Your task to perform on an android device: delete browsing data in the chrome app Image 0: 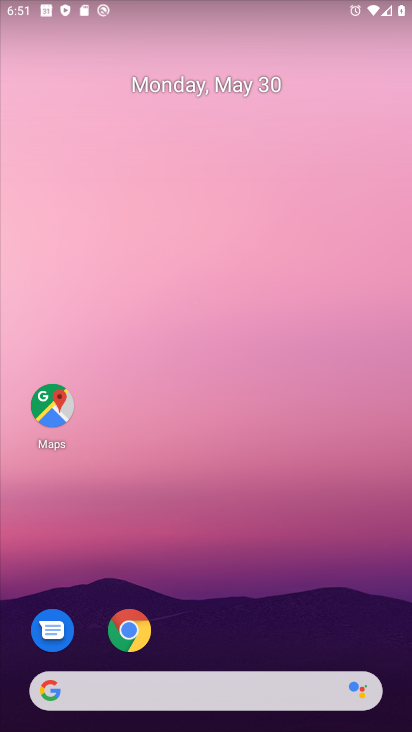
Step 0: drag from (354, 615) to (314, 57)
Your task to perform on an android device: delete browsing data in the chrome app Image 1: 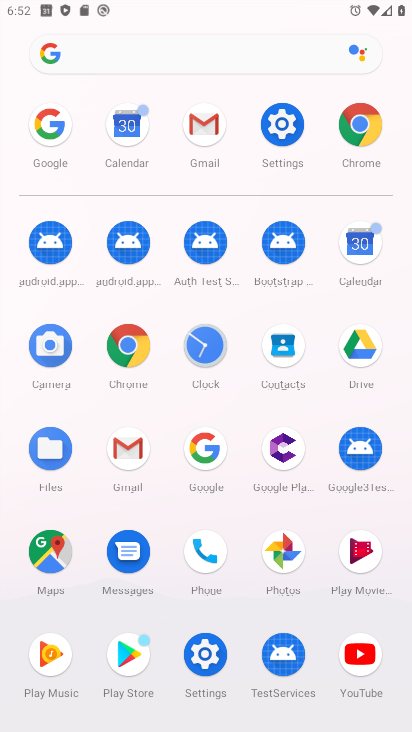
Step 1: click (382, 122)
Your task to perform on an android device: delete browsing data in the chrome app Image 2: 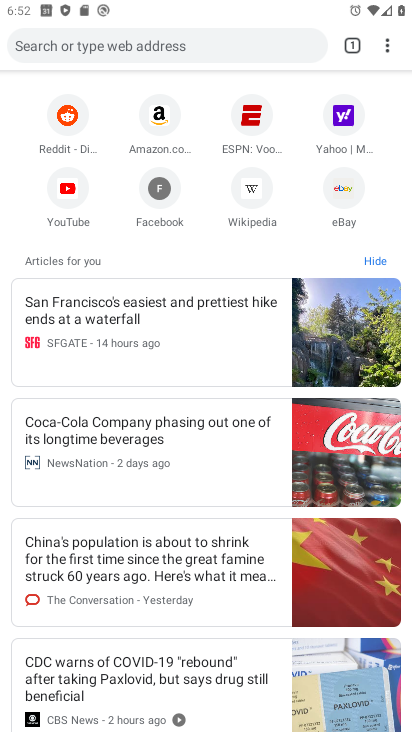
Step 2: click (387, 38)
Your task to perform on an android device: delete browsing data in the chrome app Image 3: 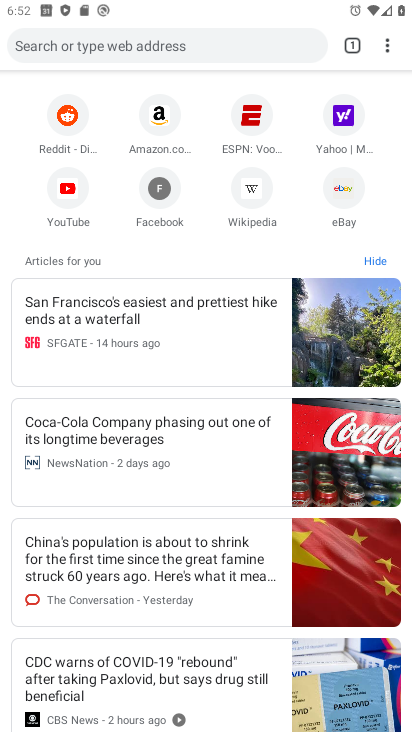
Step 3: click (392, 44)
Your task to perform on an android device: delete browsing data in the chrome app Image 4: 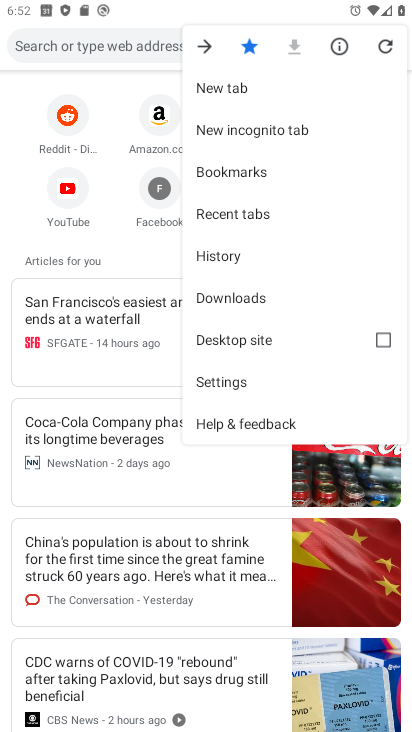
Step 4: click (219, 260)
Your task to perform on an android device: delete browsing data in the chrome app Image 5: 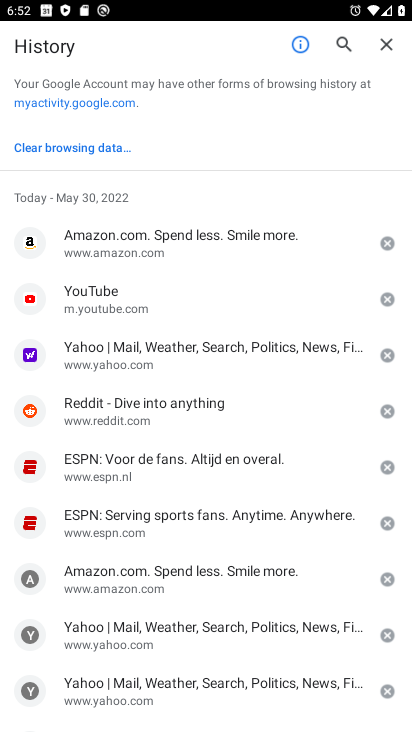
Step 5: click (64, 141)
Your task to perform on an android device: delete browsing data in the chrome app Image 6: 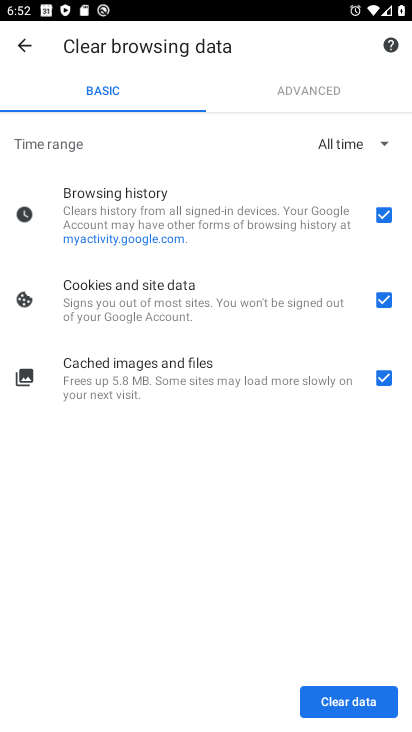
Step 6: click (348, 696)
Your task to perform on an android device: delete browsing data in the chrome app Image 7: 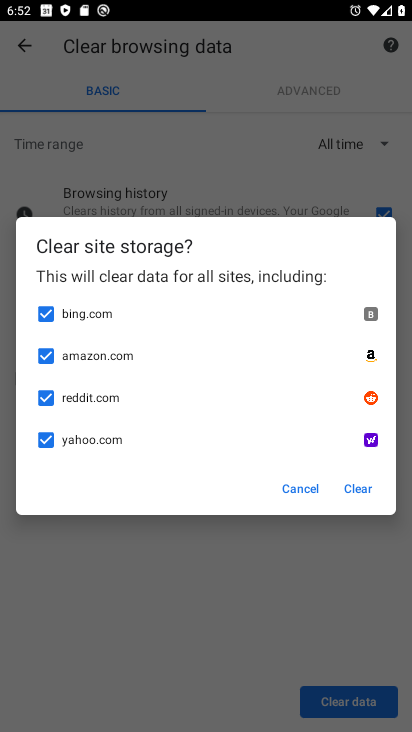
Step 7: click (364, 492)
Your task to perform on an android device: delete browsing data in the chrome app Image 8: 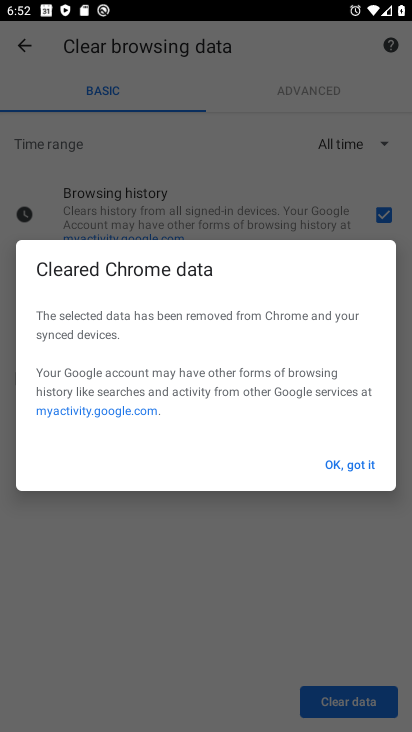
Step 8: click (365, 471)
Your task to perform on an android device: delete browsing data in the chrome app Image 9: 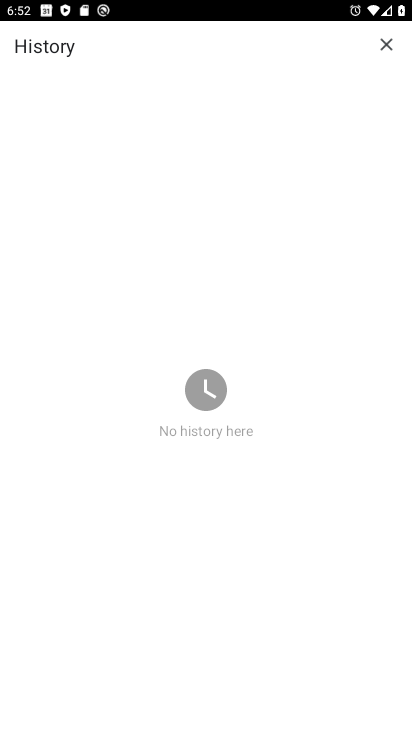
Step 9: task complete